Your task to perform on an android device: Open maps Image 0: 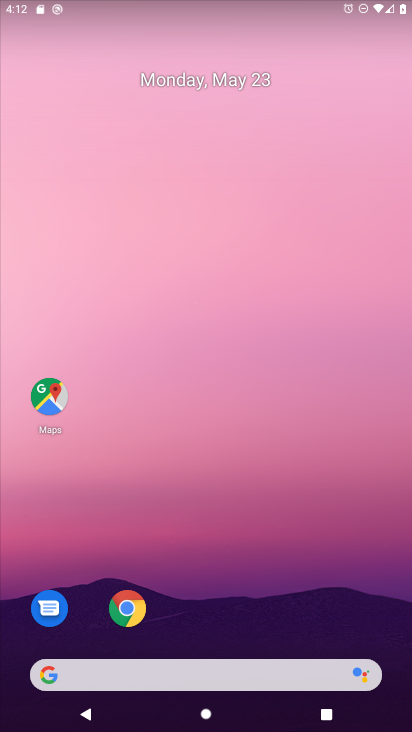
Step 0: click (48, 399)
Your task to perform on an android device: Open maps Image 1: 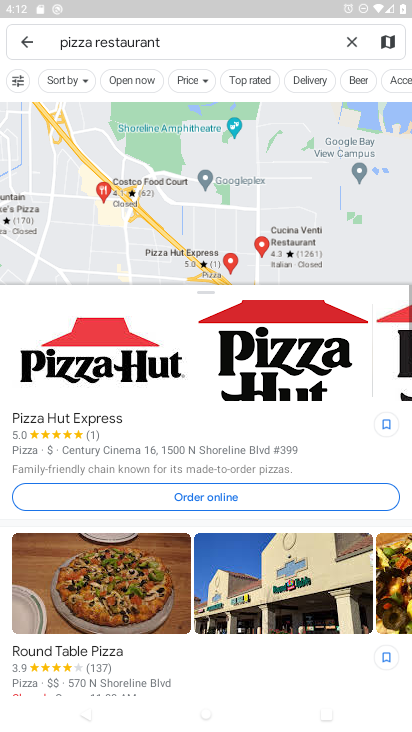
Step 1: click (354, 43)
Your task to perform on an android device: Open maps Image 2: 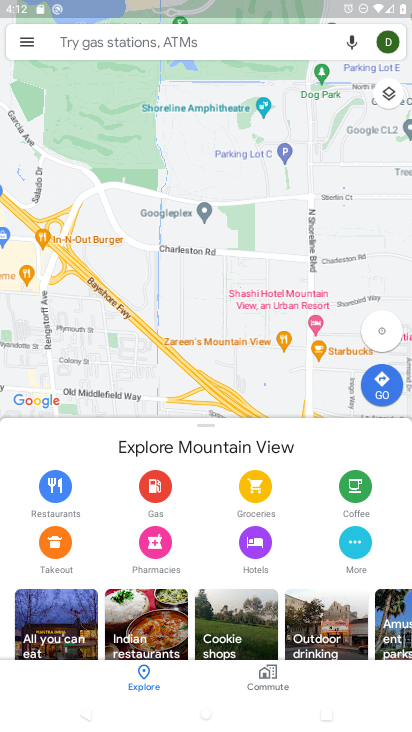
Step 2: task complete